Your task to perform on an android device: change the clock display to digital Image 0: 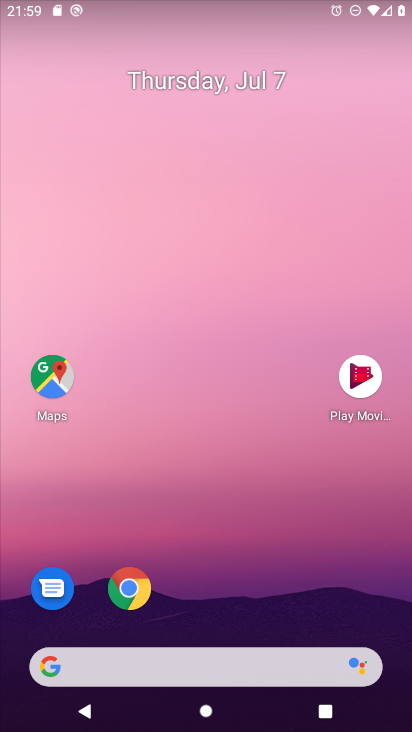
Step 0: drag from (237, 530) to (179, 211)
Your task to perform on an android device: change the clock display to digital Image 1: 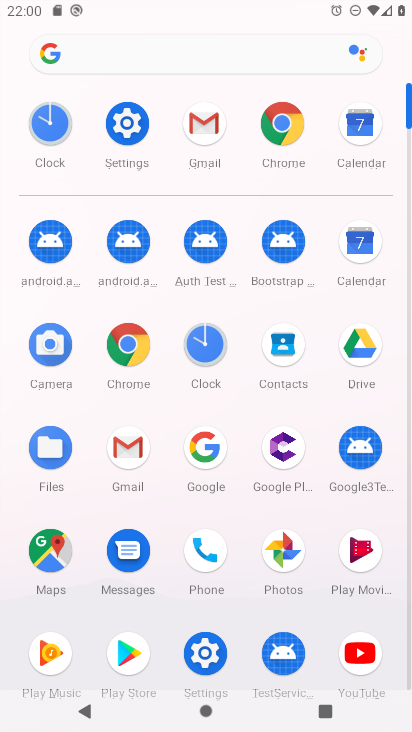
Step 1: click (190, 335)
Your task to perform on an android device: change the clock display to digital Image 2: 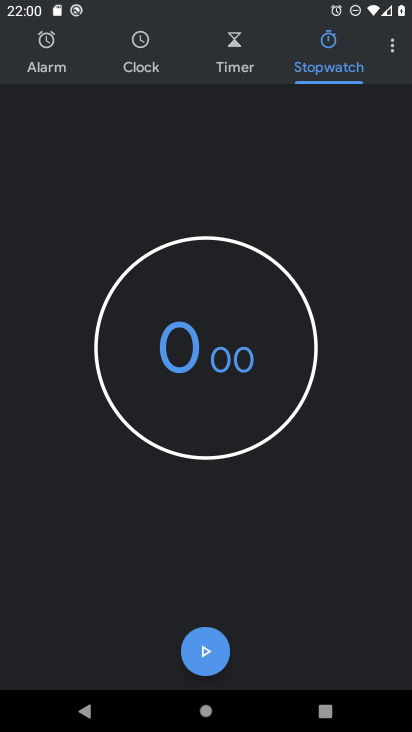
Step 2: click (395, 47)
Your task to perform on an android device: change the clock display to digital Image 3: 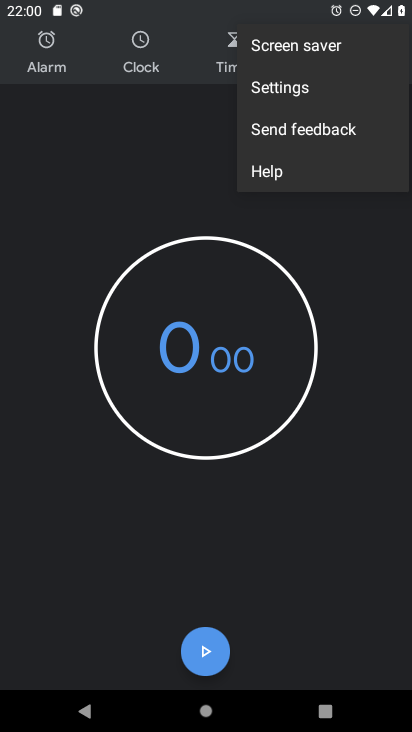
Step 3: click (294, 80)
Your task to perform on an android device: change the clock display to digital Image 4: 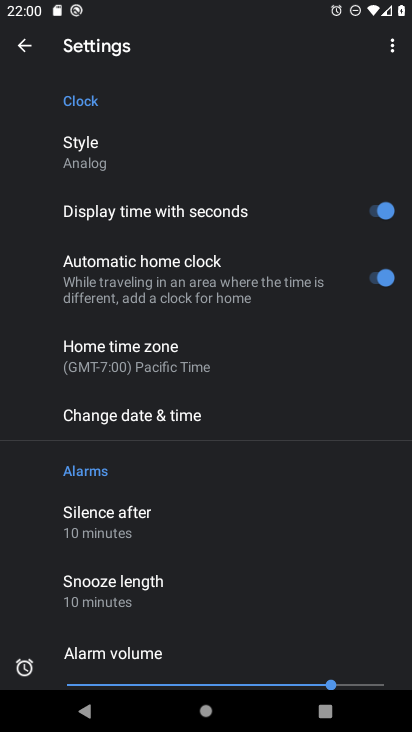
Step 4: click (121, 146)
Your task to perform on an android device: change the clock display to digital Image 5: 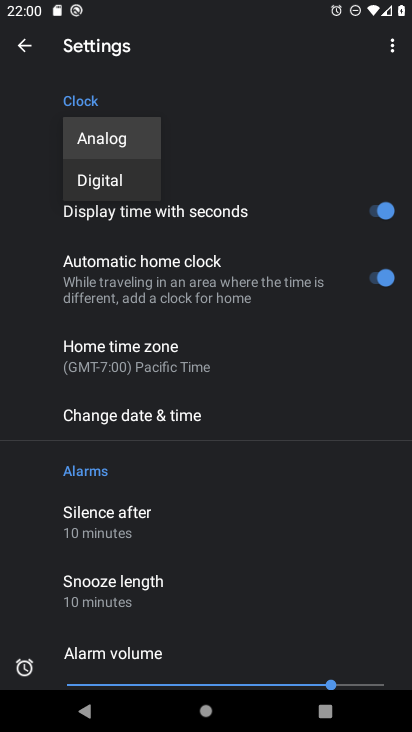
Step 5: click (111, 171)
Your task to perform on an android device: change the clock display to digital Image 6: 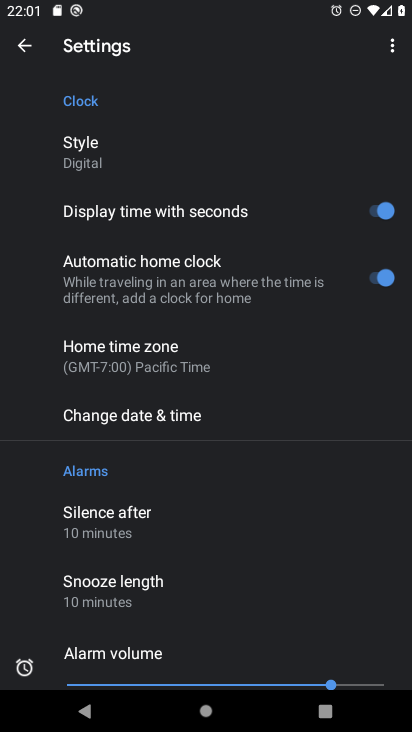
Step 6: task complete